Your task to perform on an android device: Open internet settings Image 0: 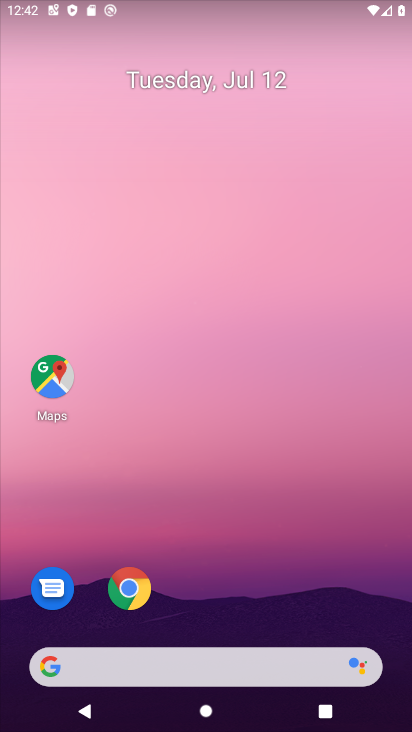
Step 0: click (165, 252)
Your task to perform on an android device: Open internet settings Image 1: 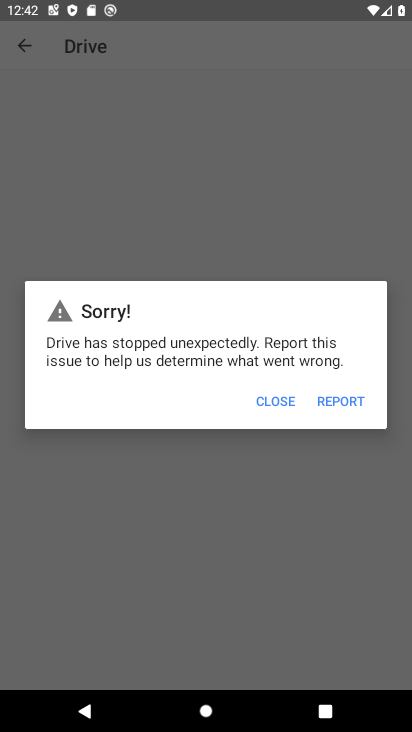
Step 1: press home button
Your task to perform on an android device: Open internet settings Image 2: 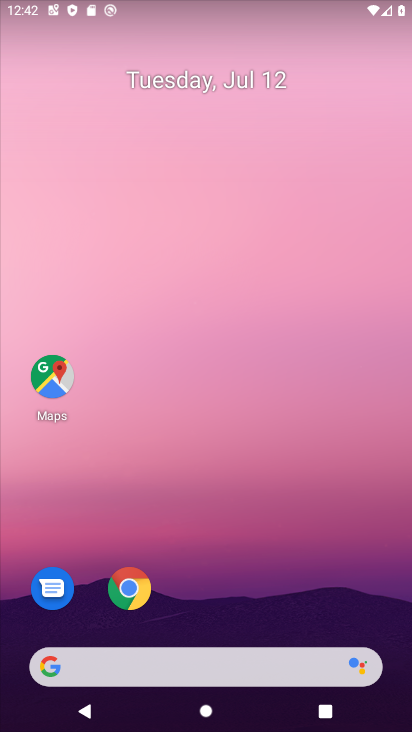
Step 2: drag from (172, 657) to (173, 203)
Your task to perform on an android device: Open internet settings Image 3: 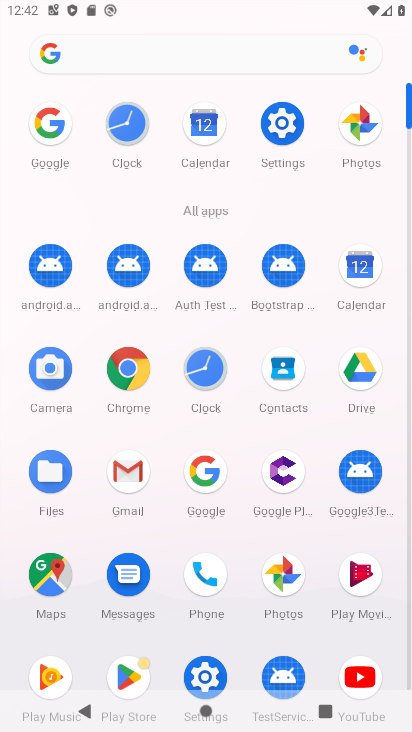
Step 3: click (280, 128)
Your task to perform on an android device: Open internet settings Image 4: 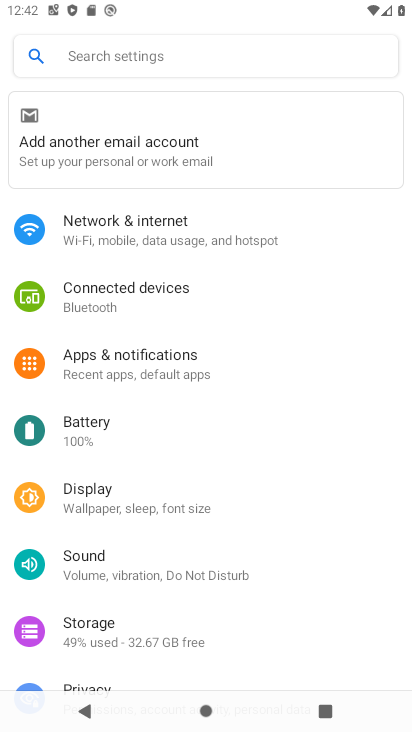
Step 4: click (179, 233)
Your task to perform on an android device: Open internet settings Image 5: 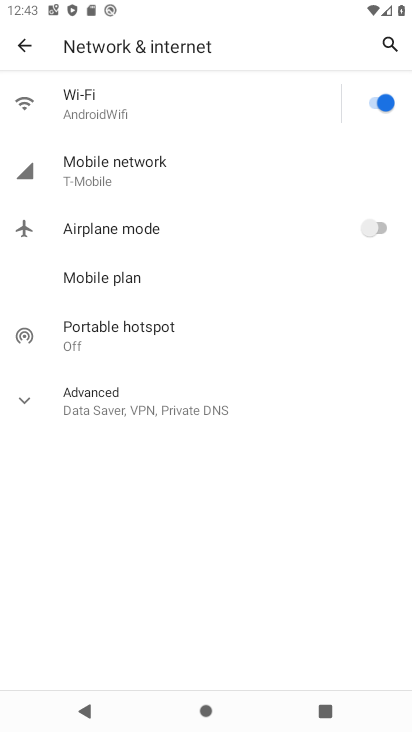
Step 5: task complete